Your task to perform on an android device: remove spam from my inbox in the gmail app Image 0: 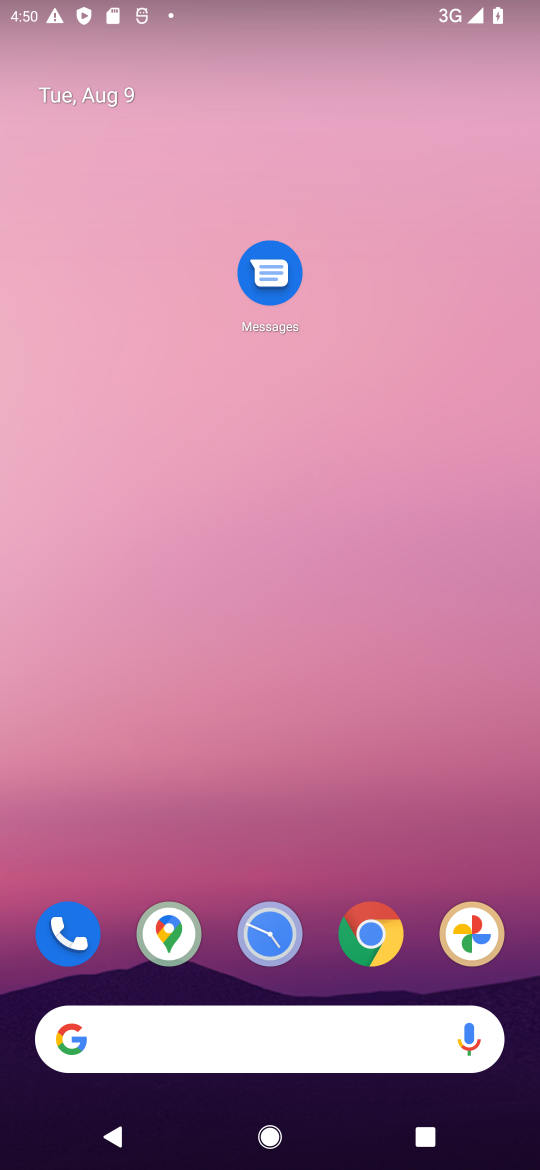
Step 0: drag from (317, 991) to (474, 130)
Your task to perform on an android device: remove spam from my inbox in the gmail app Image 1: 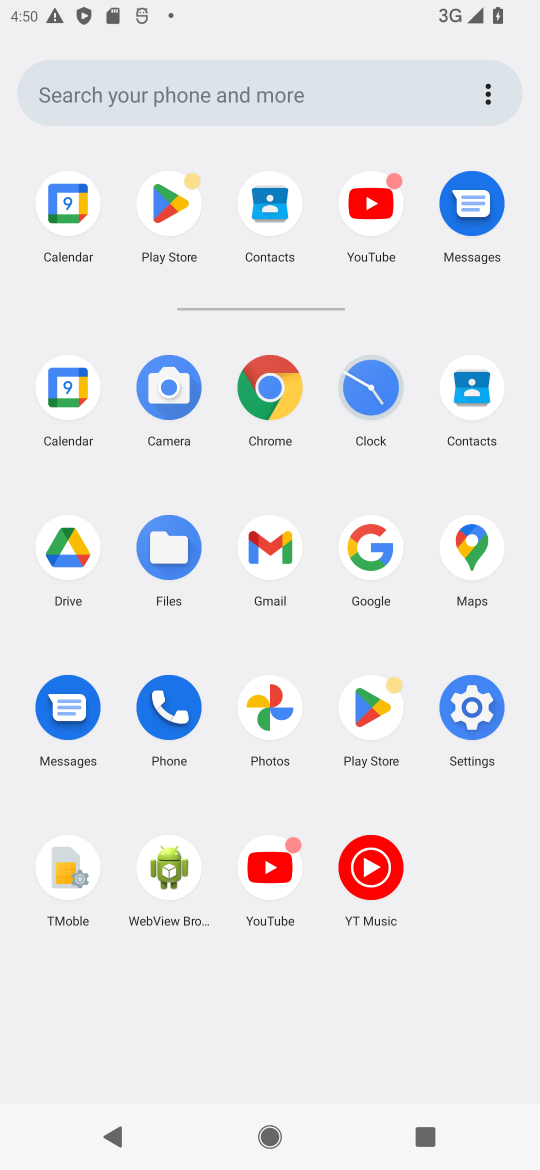
Step 1: click (265, 587)
Your task to perform on an android device: remove spam from my inbox in the gmail app Image 2: 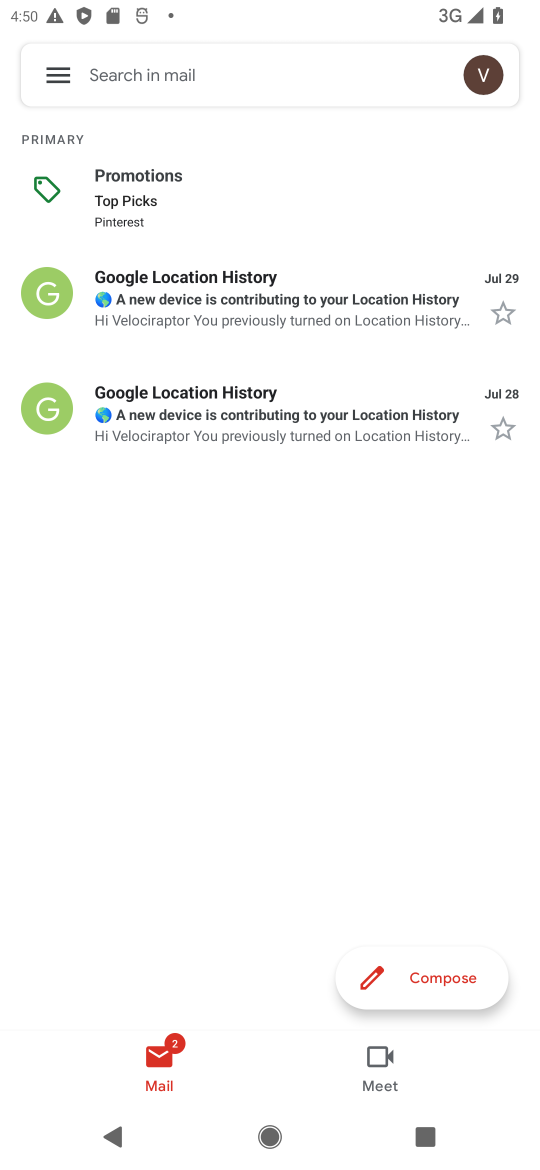
Step 2: click (50, 93)
Your task to perform on an android device: remove spam from my inbox in the gmail app Image 3: 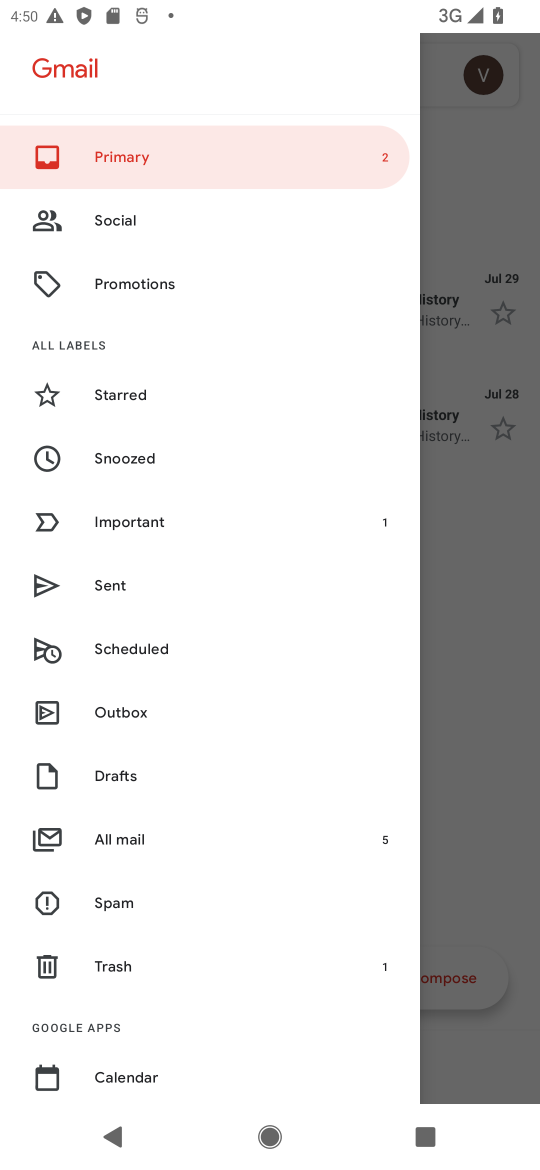
Step 3: click (141, 839)
Your task to perform on an android device: remove spam from my inbox in the gmail app Image 4: 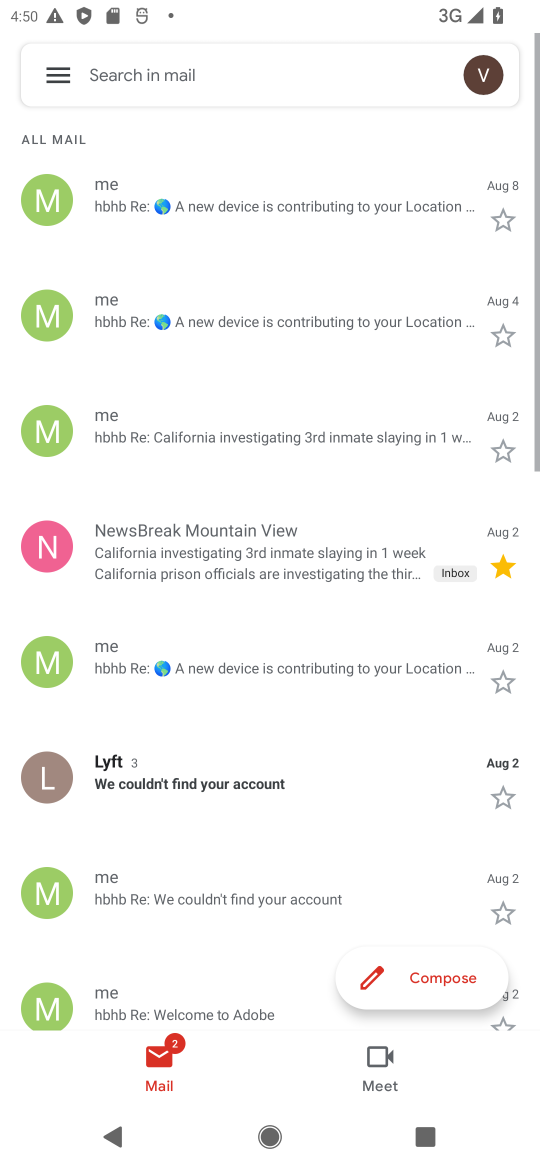
Step 4: task complete